Your task to perform on an android device: What's the weather today? Image 0: 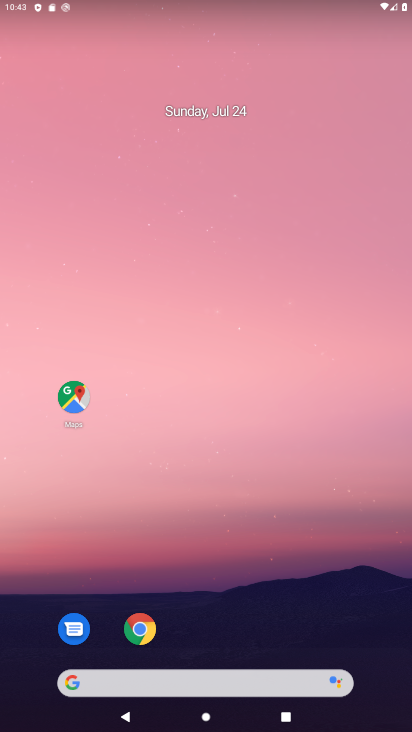
Step 0: drag from (206, 574) to (153, 19)
Your task to perform on an android device: What's the weather today? Image 1: 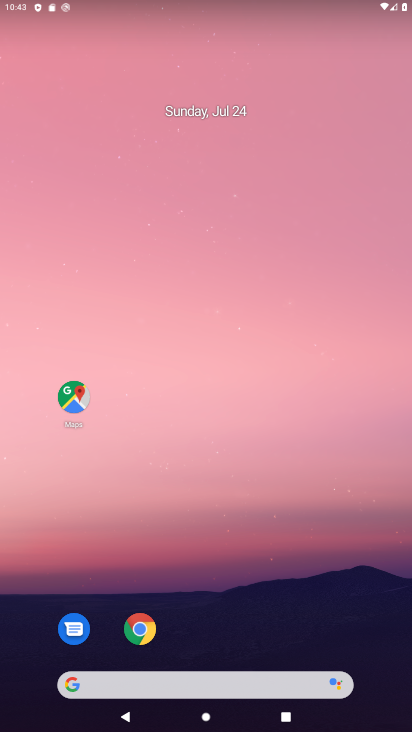
Step 1: drag from (269, 520) to (187, 153)
Your task to perform on an android device: What's the weather today? Image 2: 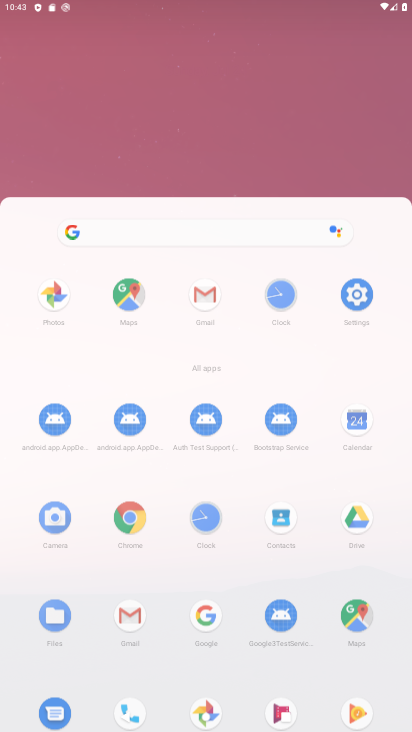
Step 2: drag from (221, 576) to (229, 255)
Your task to perform on an android device: What's the weather today? Image 3: 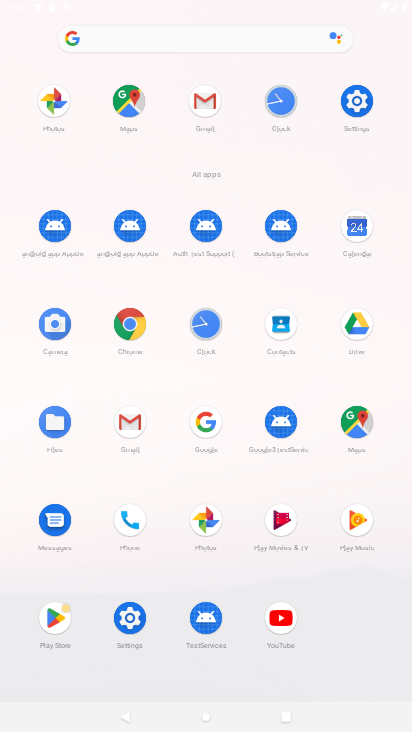
Step 3: drag from (242, 582) to (211, 185)
Your task to perform on an android device: What's the weather today? Image 4: 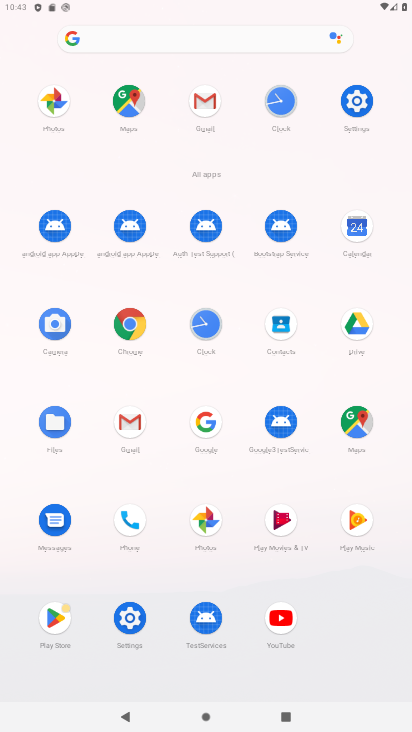
Step 4: click (122, 319)
Your task to perform on an android device: What's the weather today? Image 5: 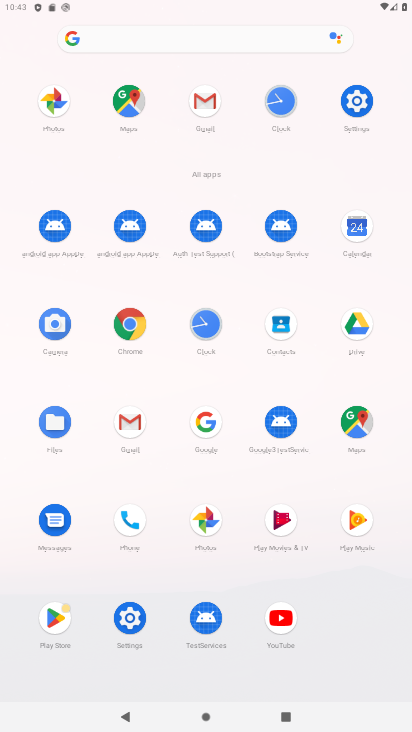
Step 5: click (131, 323)
Your task to perform on an android device: What's the weather today? Image 6: 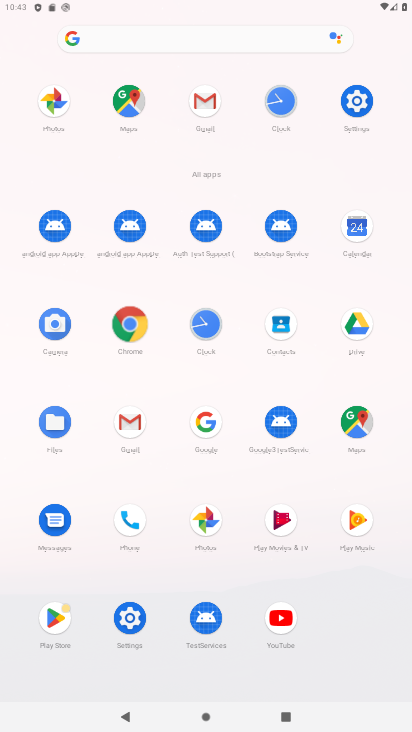
Step 6: click (132, 324)
Your task to perform on an android device: What's the weather today? Image 7: 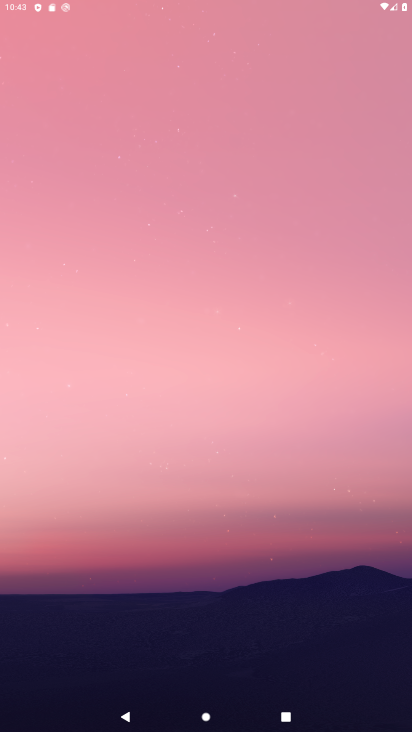
Step 7: click (142, 313)
Your task to perform on an android device: What's the weather today? Image 8: 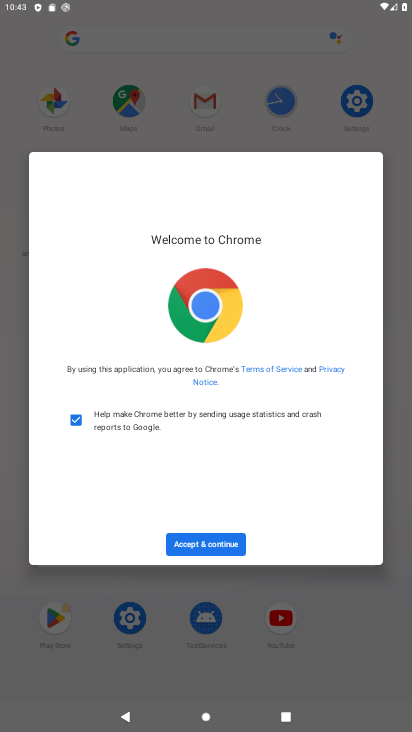
Step 8: click (222, 537)
Your task to perform on an android device: What's the weather today? Image 9: 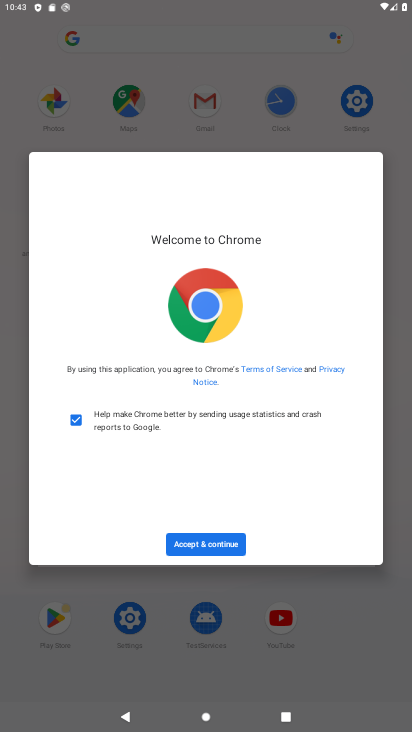
Step 9: click (221, 537)
Your task to perform on an android device: What's the weather today? Image 10: 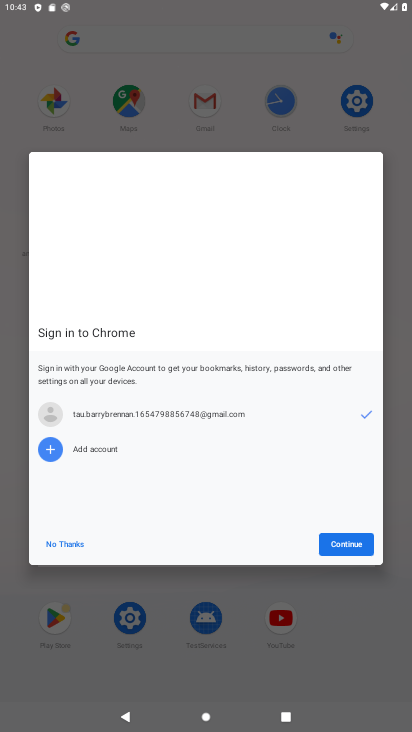
Step 10: click (75, 542)
Your task to perform on an android device: What's the weather today? Image 11: 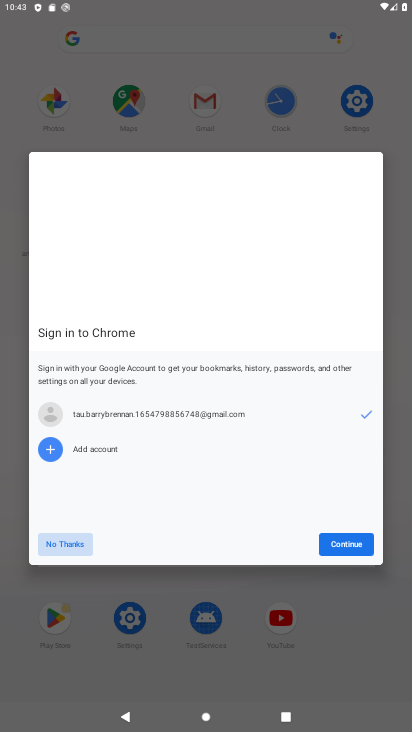
Step 11: click (75, 539)
Your task to perform on an android device: What's the weather today? Image 12: 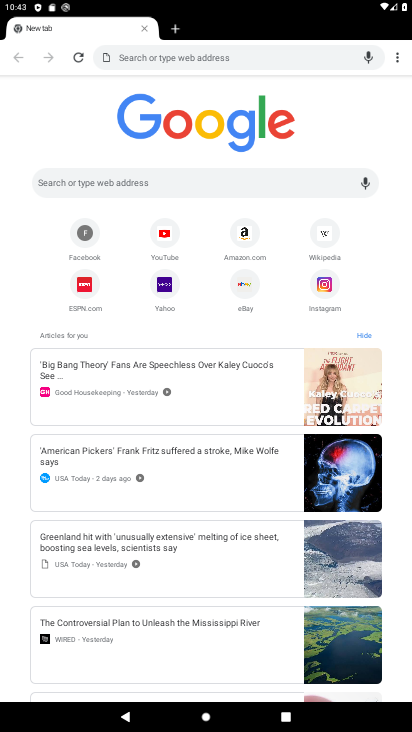
Step 12: click (59, 183)
Your task to perform on an android device: What's the weather today? Image 13: 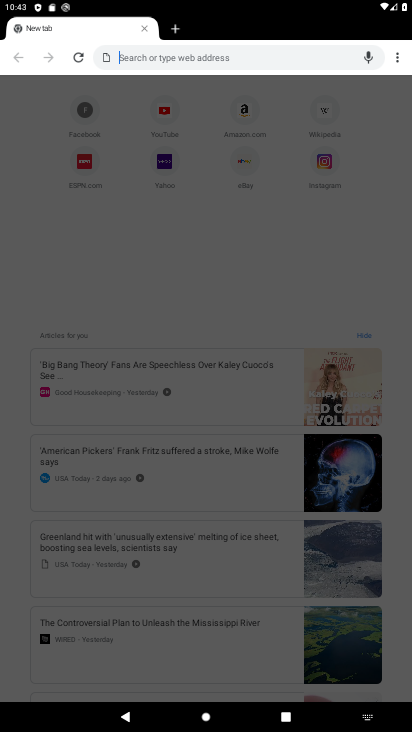
Step 13: type "weather today?"
Your task to perform on an android device: What's the weather today? Image 14: 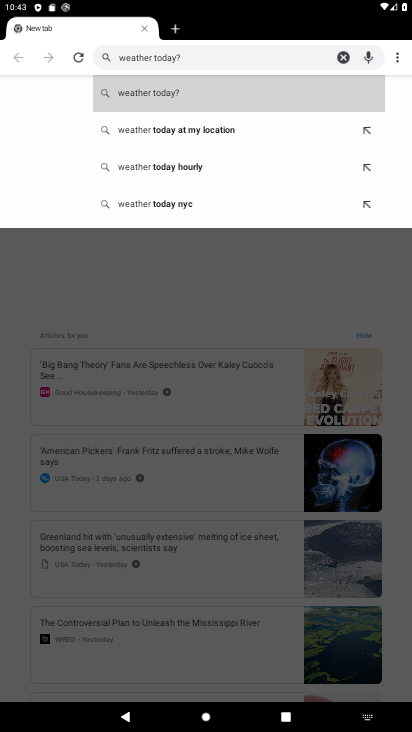
Step 14: click (147, 85)
Your task to perform on an android device: What's the weather today? Image 15: 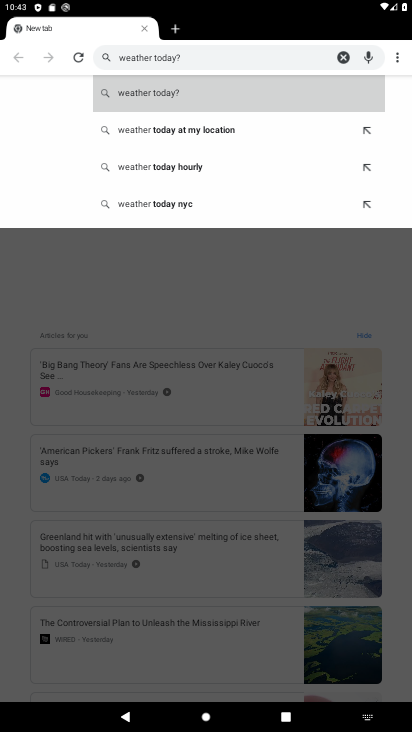
Step 15: click (151, 100)
Your task to perform on an android device: What's the weather today? Image 16: 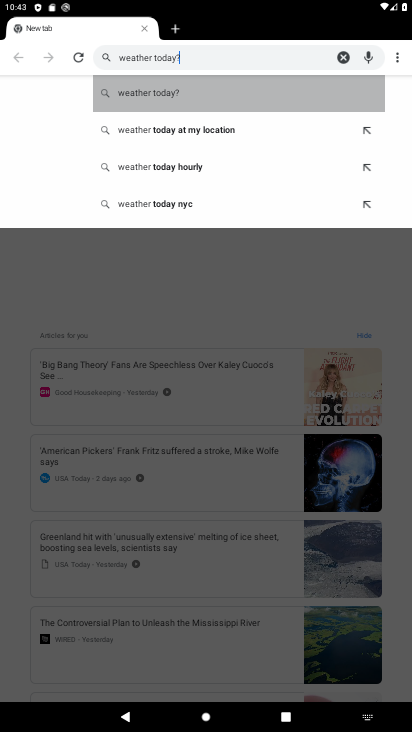
Step 16: click (156, 91)
Your task to perform on an android device: What's the weather today? Image 17: 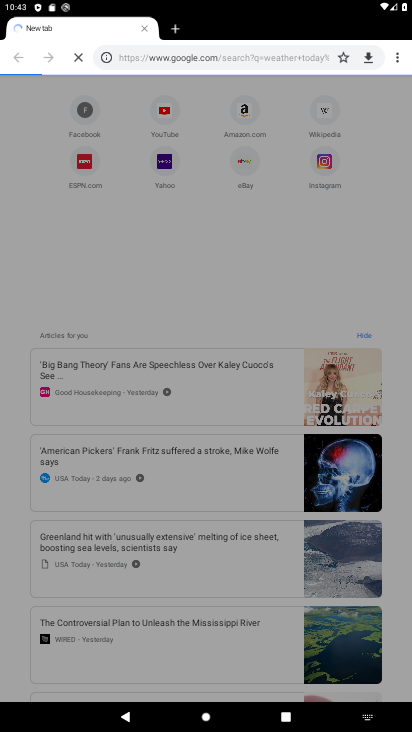
Step 17: click (156, 91)
Your task to perform on an android device: What's the weather today? Image 18: 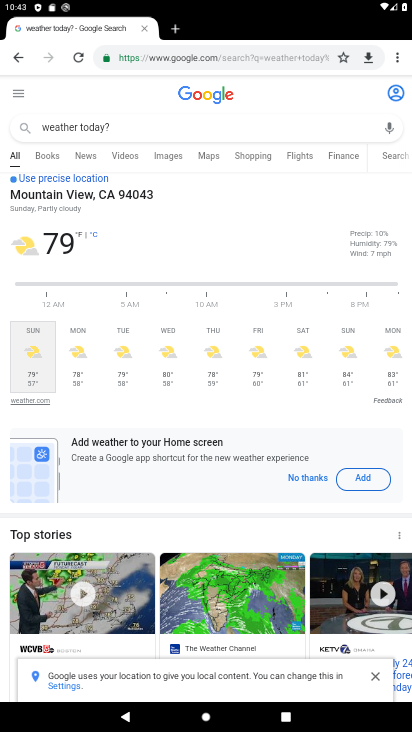
Step 18: task complete